Your task to perform on an android device: check storage Image 0: 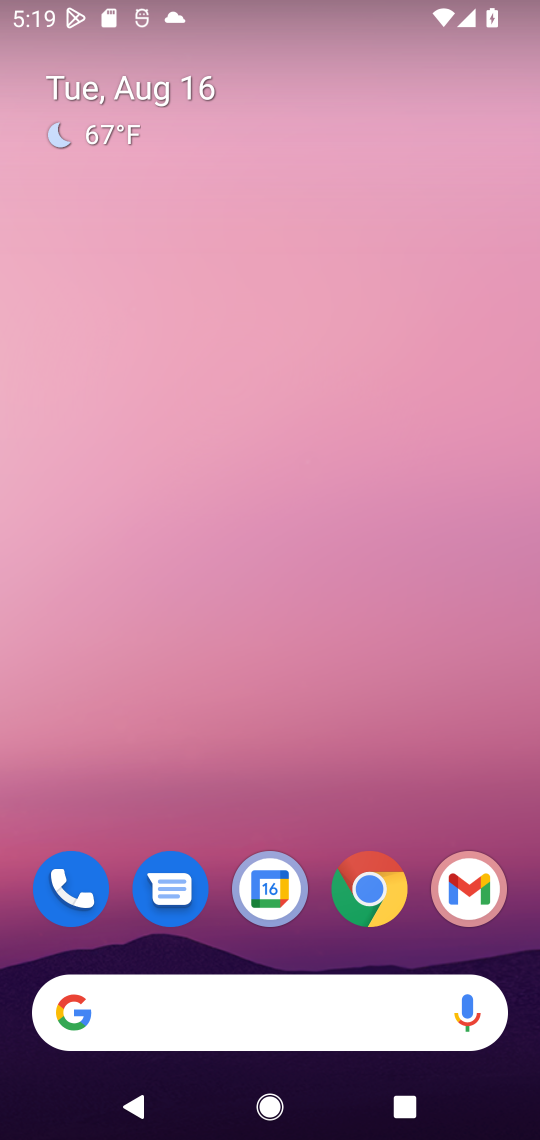
Step 0: drag from (191, 755) to (265, 496)
Your task to perform on an android device: check storage Image 1: 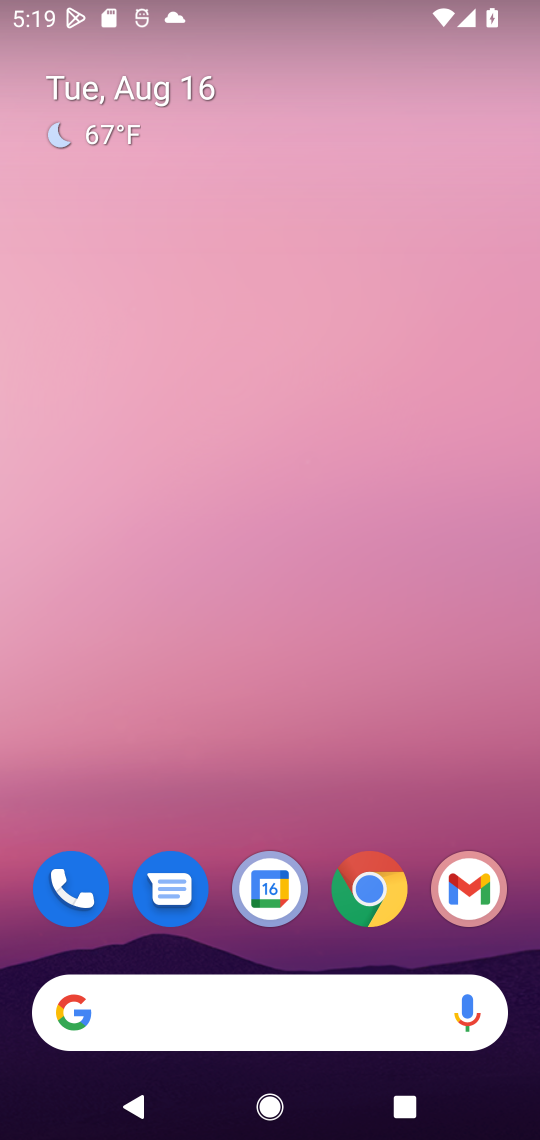
Step 1: drag from (295, 796) to (348, 205)
Your task to perform on an android device: check storage Image 2: 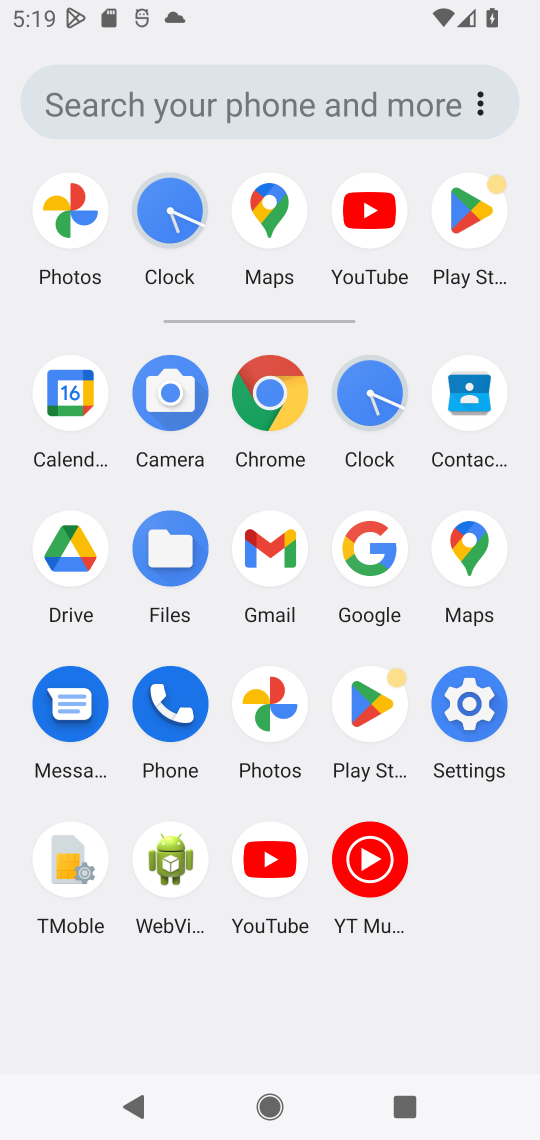
Step 2: click (481, 722)
Your task to perform on an android device: check storage Image 3: 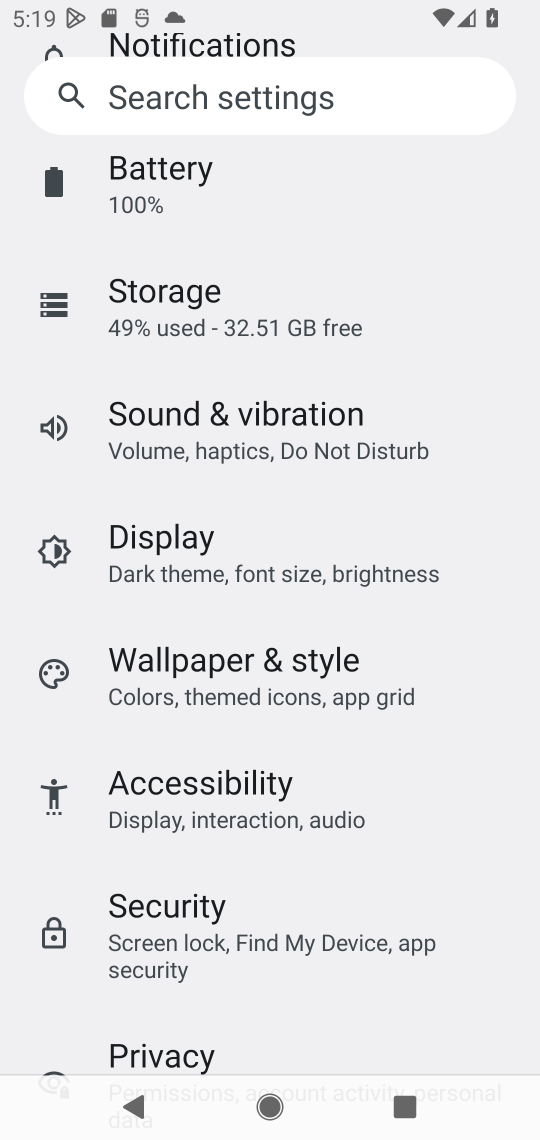
Step 3: click (236, 315)
Your task to perform on an android device: check storage Image 4: 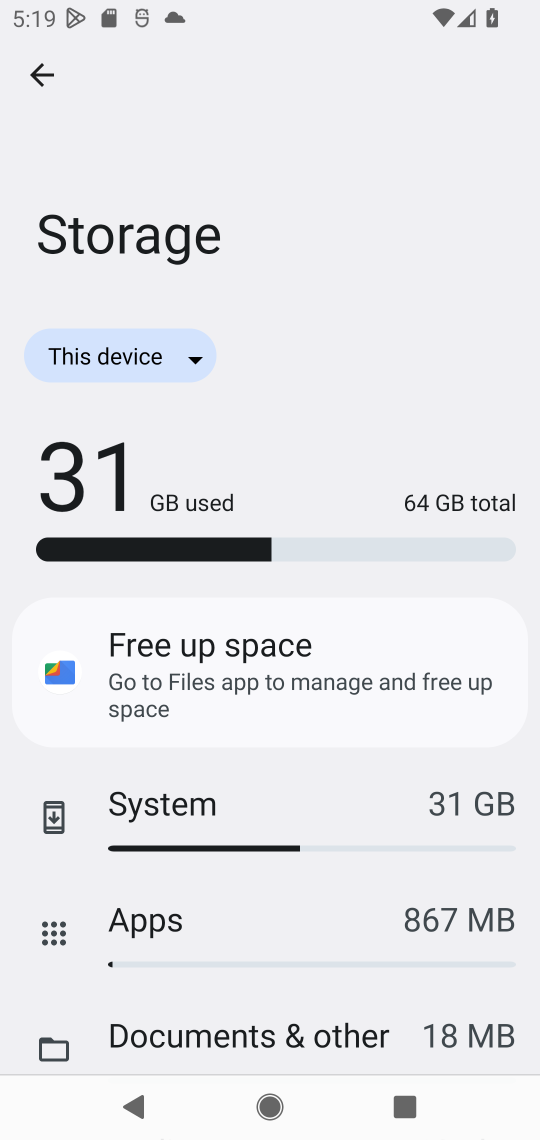
Step 4: task complete